Your task to perform on an android device: Go to CNN.com Image 0: 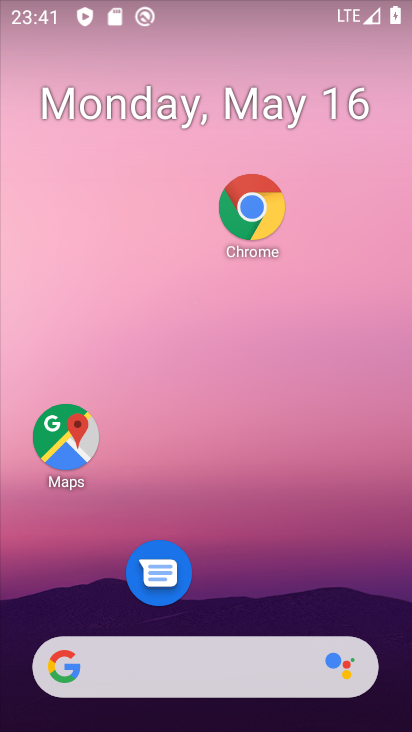
Step 0: drag from (297, 605) to (278, 121)
Your task to perform on an android device: Go to CNN.com Image 1: 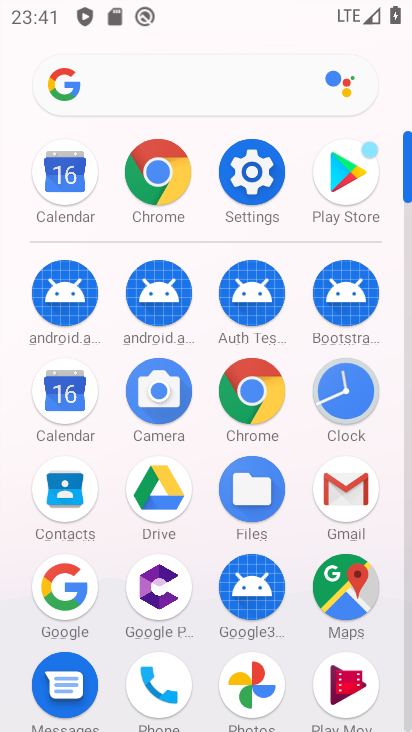
Step 1: click (248, 392)
Your task to perform on an android device: Go to CNN.com Image 2: 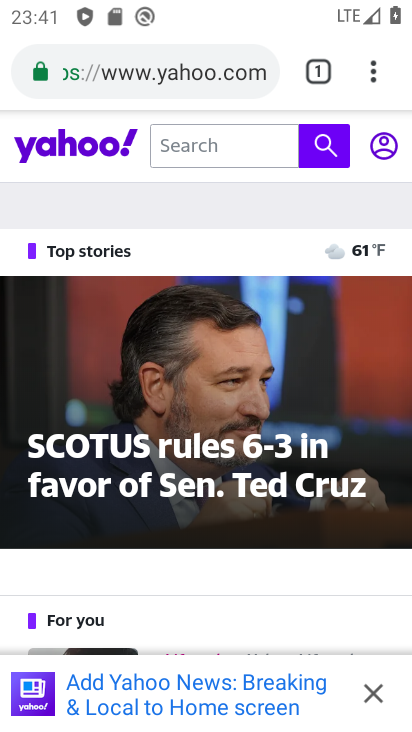
Step 2: click (238, 76)
Your task to perform on an android device: Go to CNN.com Image 3: 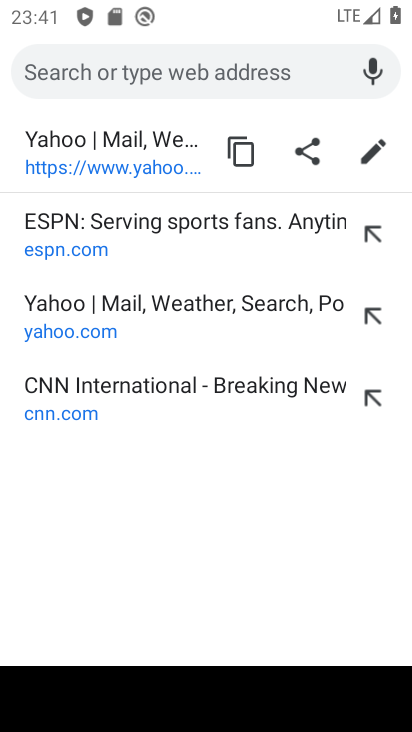
Step 3: type "cnn.com"
Your task to perform on an android device: Go to CNN.com Image 4: 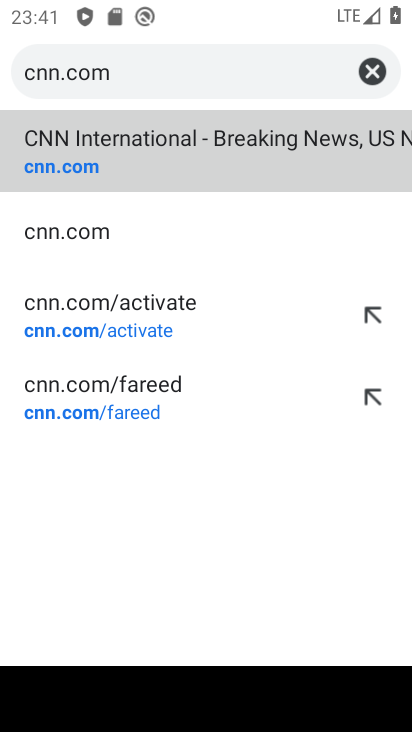
Step 4: click (287, 141)
Your task to perform on an android device: Go to CNN.com Image 5: 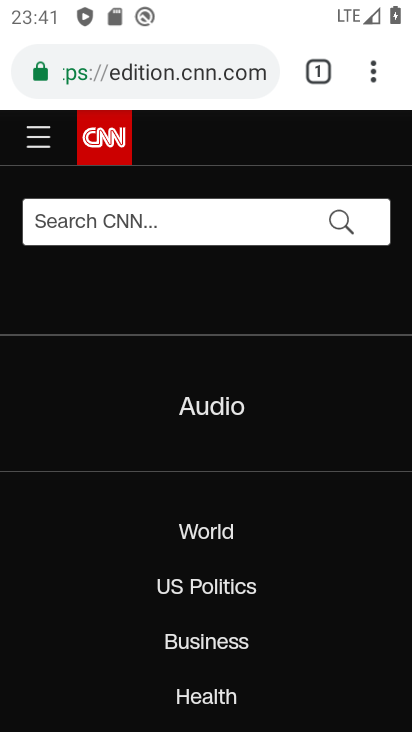
Step 5: task complete